Your task to perform on an android device: Open the map Image 0: 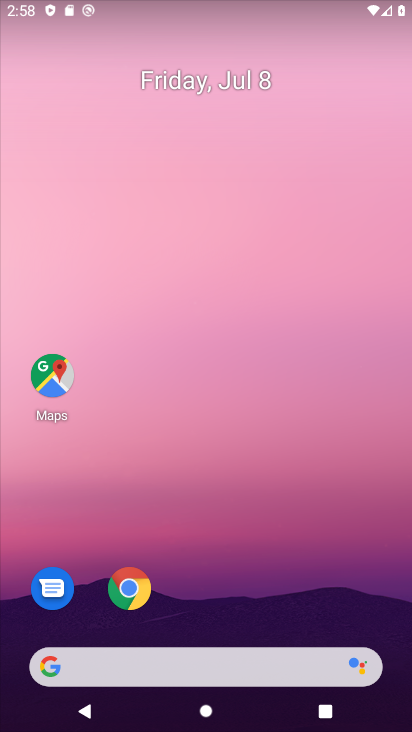
Step 0: click (50, 386)
Your task to perform on an android device: Open the map Image 1: 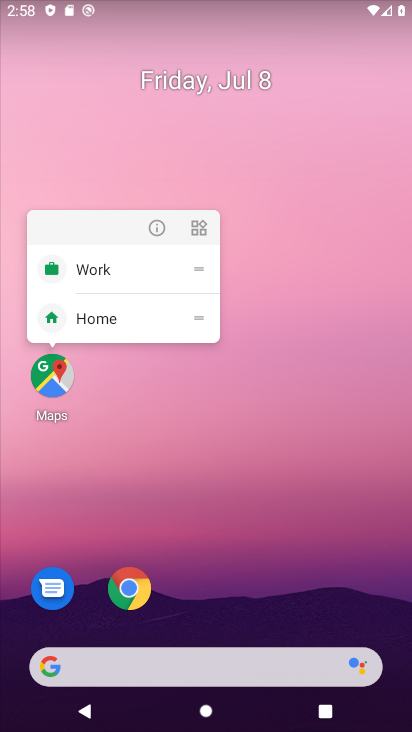
Step 1: click (47, 371)
Your task to perform on an android device: Open the map Image 2: 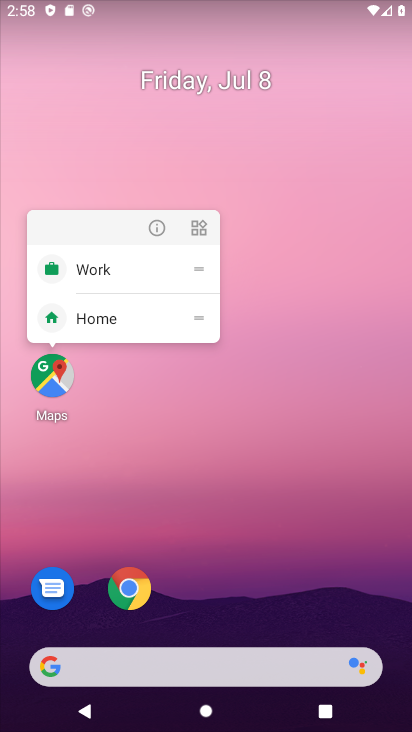
Step 2: click (47, 373)
Your task to perform on an android device: Open the map Image 3: 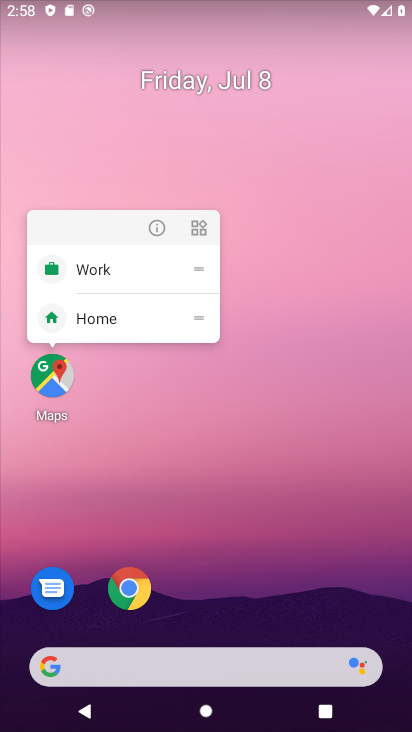
Step 3: click (58, 384)
Your task to perform on an android device: Open the map Image 4: 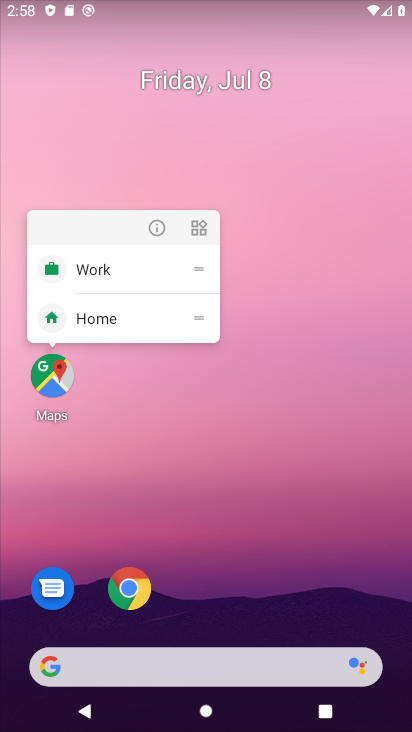
Step 4: click (52, 384)
Your task to perform on an android device: Open the map Image 5: 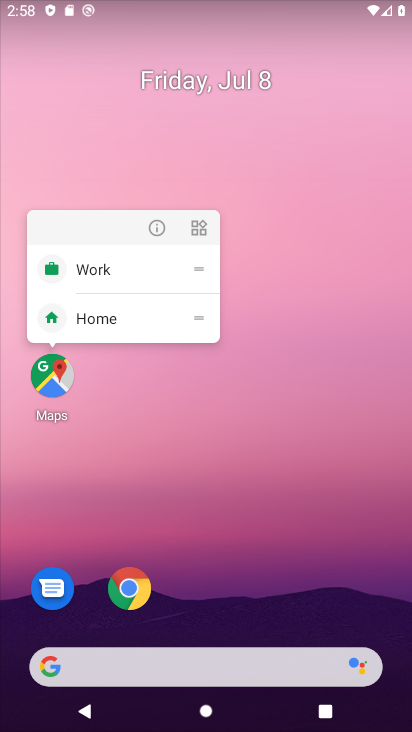
Step 5: click (51, 378)
Your task to perform on an android device: Open the map Image 6: 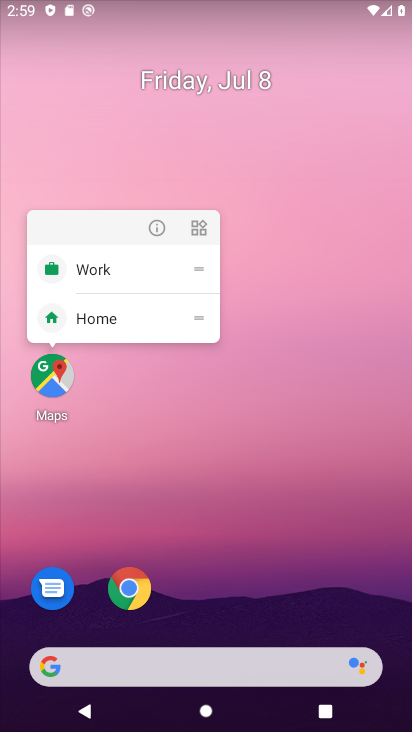
Step 6: click (51, 375)
Your task to perform on an android device: Open the map Image 7: 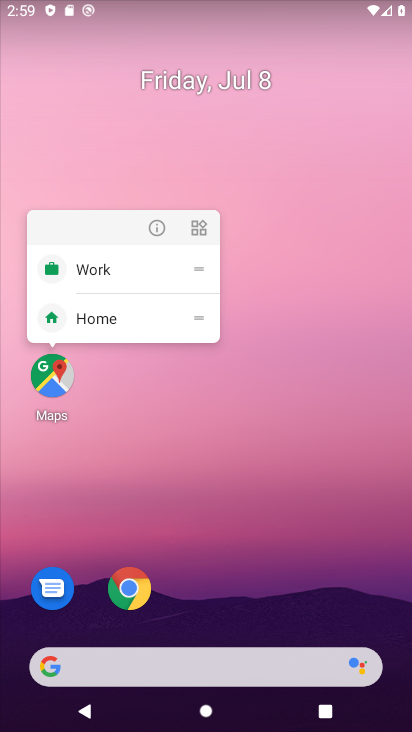
Step 7: click (50, 374)
Your task to perform on an android device: Open the map Image 8: 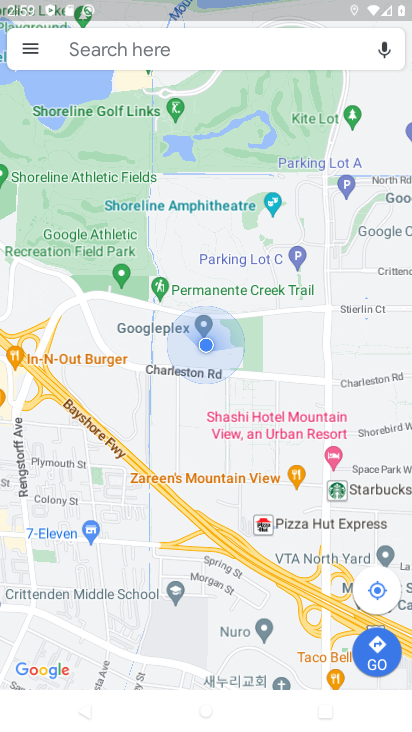
Step 8: task complete